Your task to perform on an android device: Go to Reddit.com Image 0: 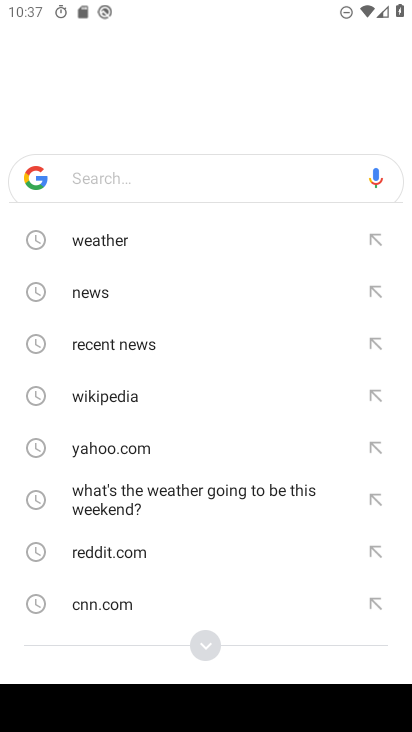
Step 0: press home button
Your task to perform on an android device: Go to Reddit.com Image 1: 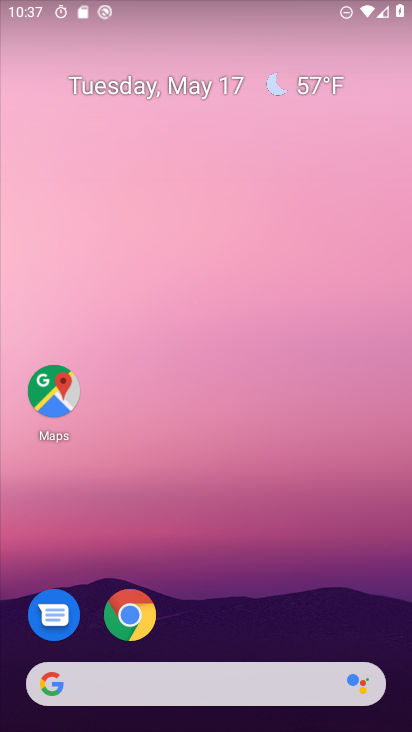
Step 1: click (132, 618)
Your task to perform on an android device: Go to Reddit.com Image 2: 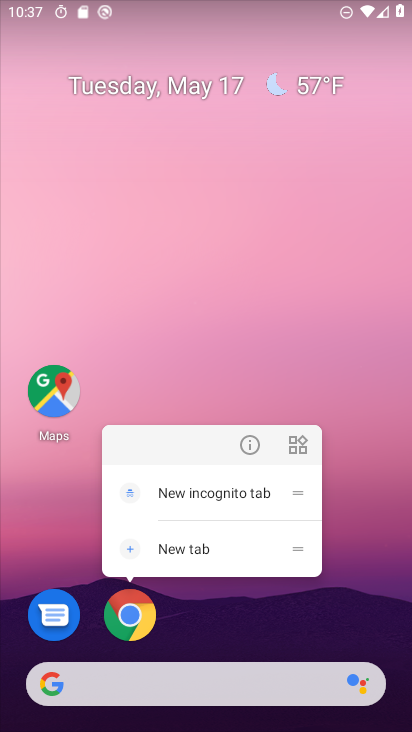
Step 2: click (134, 636)
Your task to perform on an android device: Go to Reddit.com Image 3: 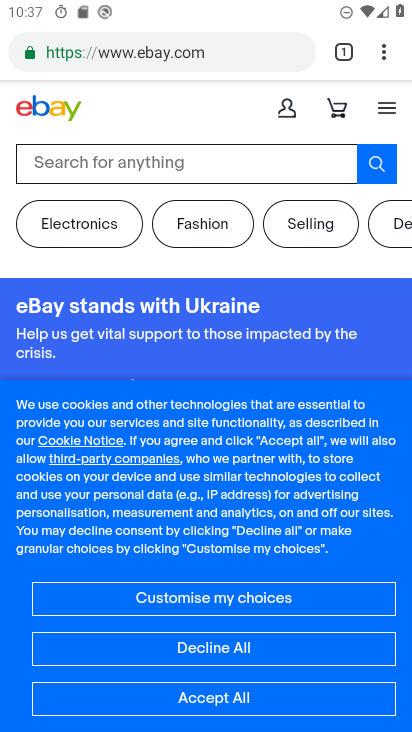
Step 3: click (192, 49)
Your task to perform on an android device: Go to Reddit.com Image 4: 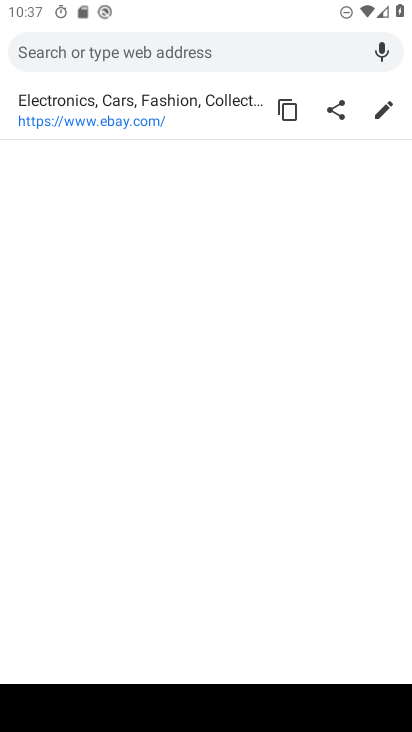
Step 4: type "Reddit.com"
Your task to perform on an android device: Go to Reddit.com Image 5: 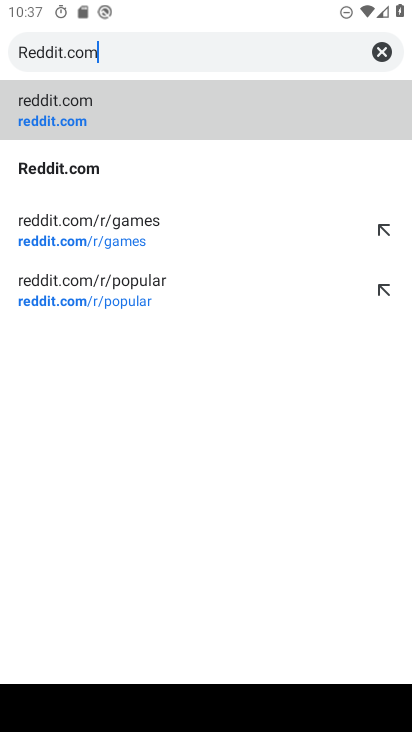
Step 5: click (268, 113)
Your task to perform on an android device: Go to Reddit.com Image 6: 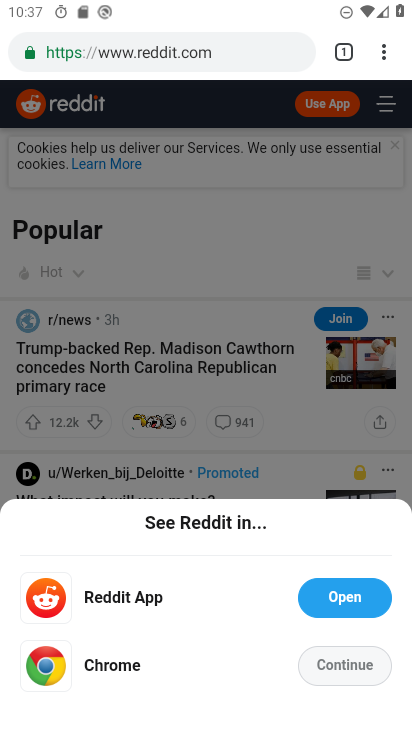
Step 6: task complete